Your task to perform on an android device: Is it going to rain today? Image 0: 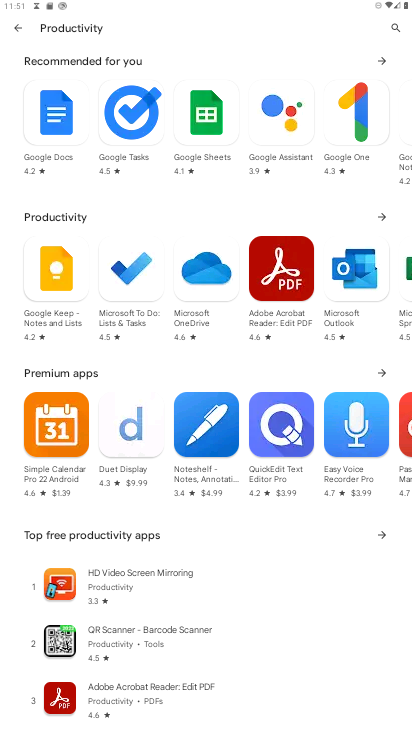
Step 0: press home button
Your task to perform on an android device: Is it going to rain today? Image 1: 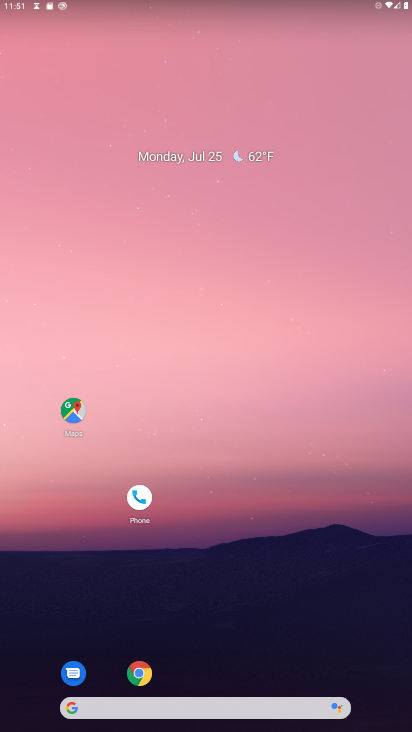
Step 1: click (67, 706)
Your task to perform on an android device: Is it going to rain today? Image 2: 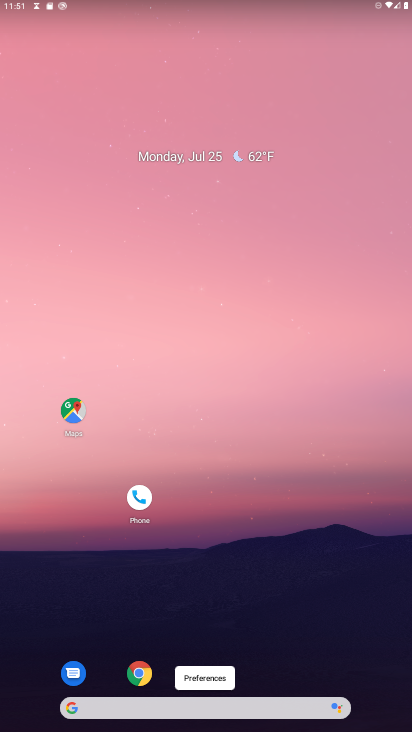
Step 2: click (67, 706)
Your task to perform on an android device: Is it going to rain today? Image 3: 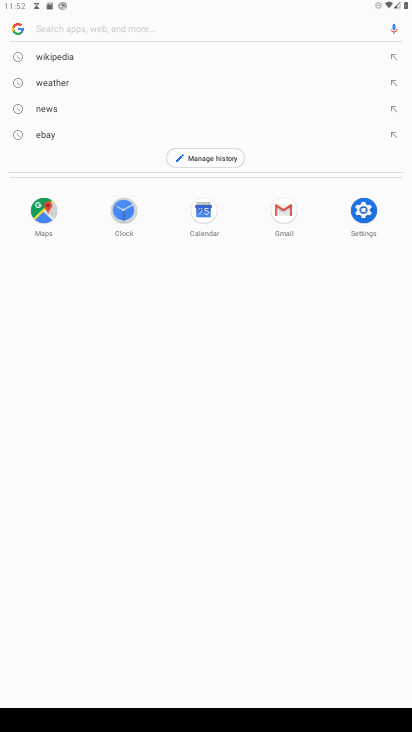
Step 3: type "Is it going to rain today?"
Your task to perform on an android device: Is it going to rain today? Image 4: 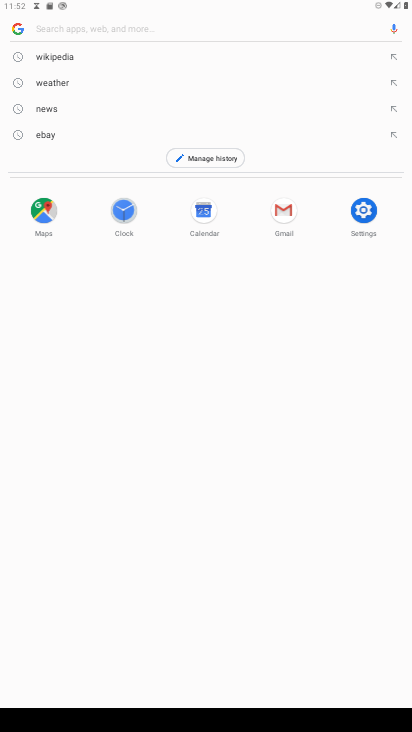
Step 4: click (74, 28)
Your task to perform on an android device: Is it going to rain today? Image 5: 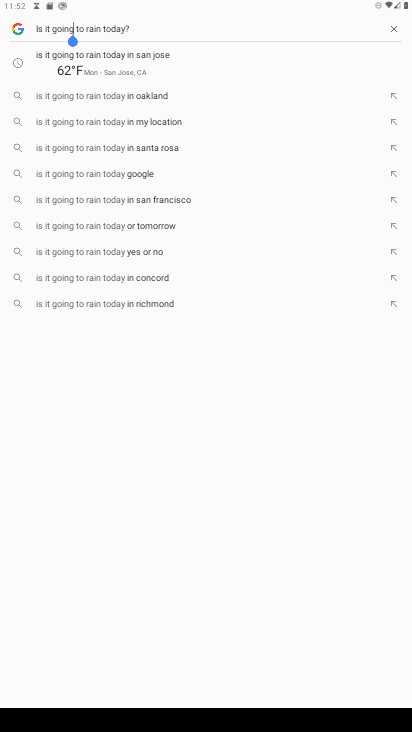
Step 5: click (87, 22)
Your task to perform on an android device: Is it going to rain today? Image 6: 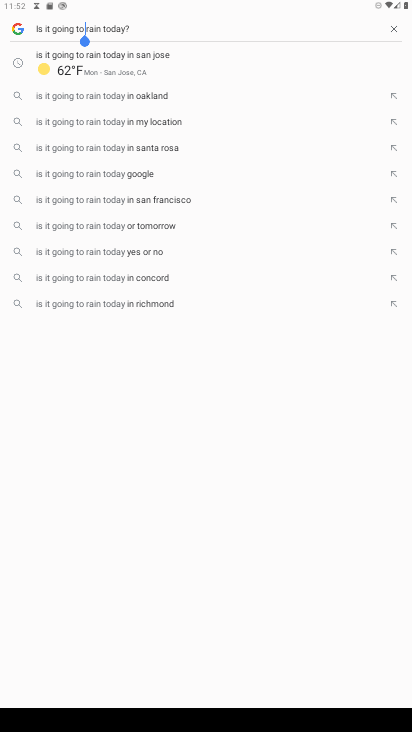
Step 6: press enter
Your task to perform on an android device: Is it going to rain today? Image 7: 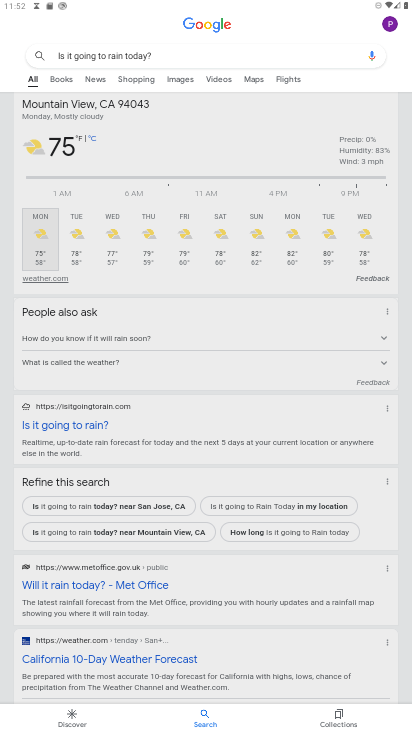
Step 7: task complete